Your task to perform on an android device: stop showing notifications on the lock screen Image 0: 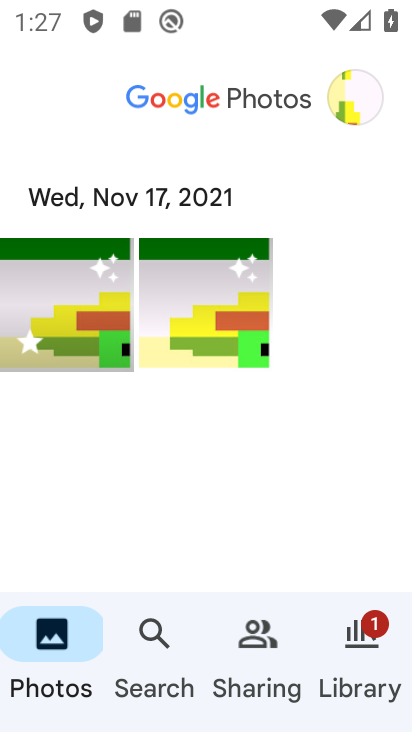
Step 0: press home button
Your task to perform on an android device: stop showing notifications on the lock screen Image 1: 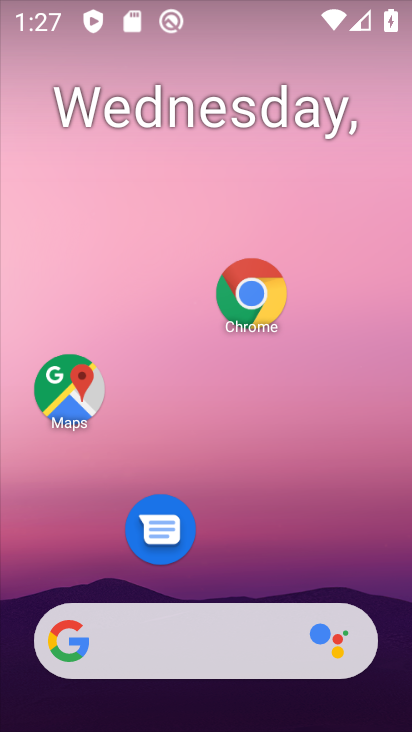
Step 1: drag from (291, 632) to (314, 84)
Your task to perform on an android device: stop showing notifications on the lock screen Image 2: 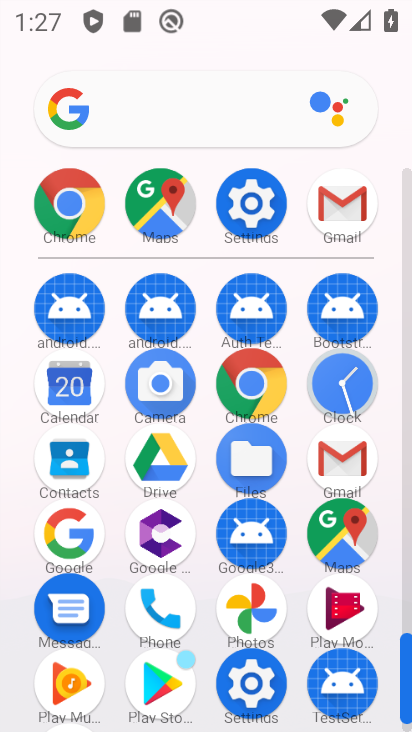
Step 2: click (262, 221)
Your task to perform on an android device: stop showing notifications on the lock screen Image 3: 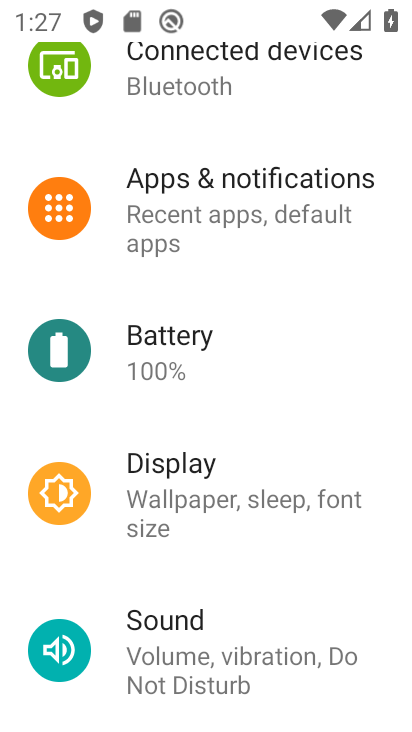
Step 3: drag from (259, 294) to (251, 540)
Your task to perform on an android device: stop showing notifications on the lock screen Image 4: 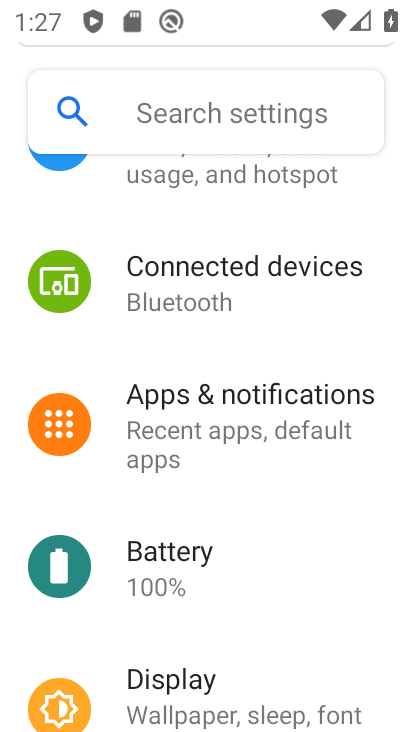
Step 4: click (272, 428)
Your task to perform on an android device: stop showing notifications on the lock screen Image 5: 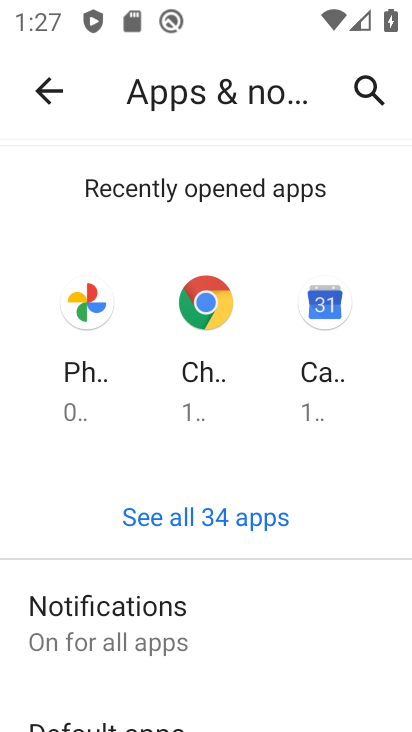
Step 5: drag from (206, 652) to (208, 291)
Your task to perform on an android device: stop showing notifications on the lock screen Image 6: 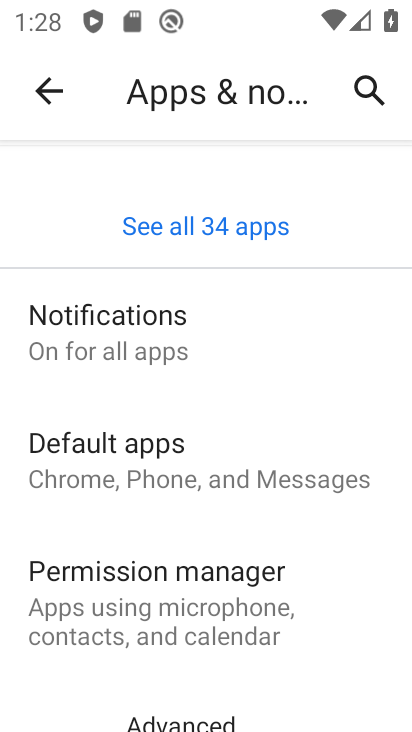
Step 6: click (203, 334)
Your task to perform on an android device: stop showing notifications on the lock screen Image 7: 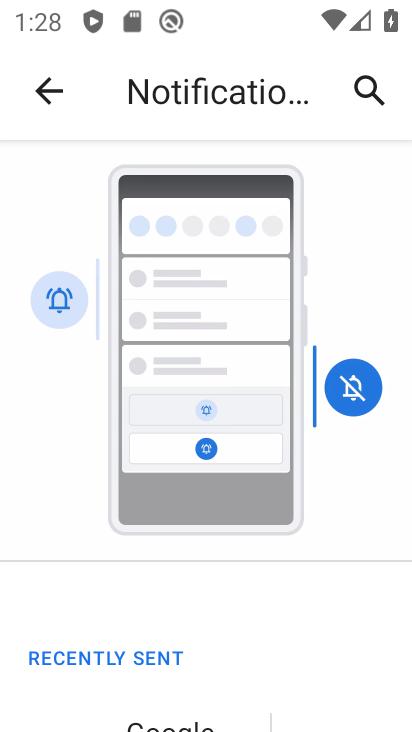
Step 7: drag from (210, 640) to (210, 337)
Your task to perform on an android device: stop showing notifications on the lock screen Image 8: 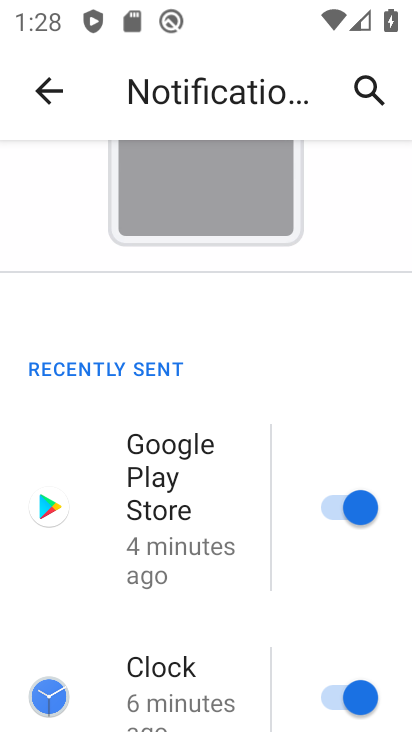
Step 8: drag from (244, 498) to (259, 283)
Your task to perform on an android device: stop showing notifications on the lock screen Image 9: 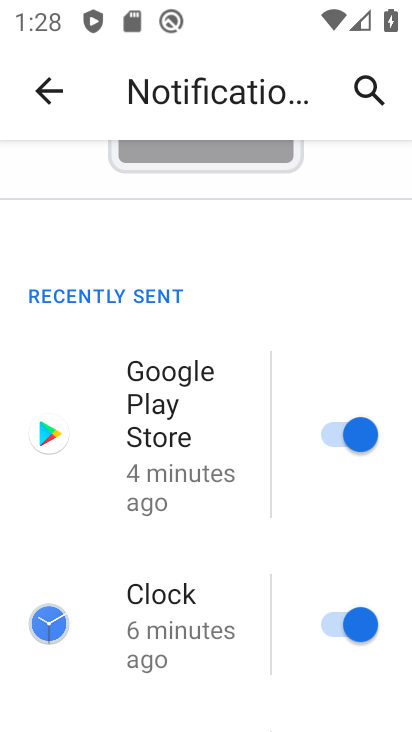
Step 9: drag from (173, 560) to (214, 245)
Your task to perform on an android device: stop showing notifications on the lock screen Image 10: 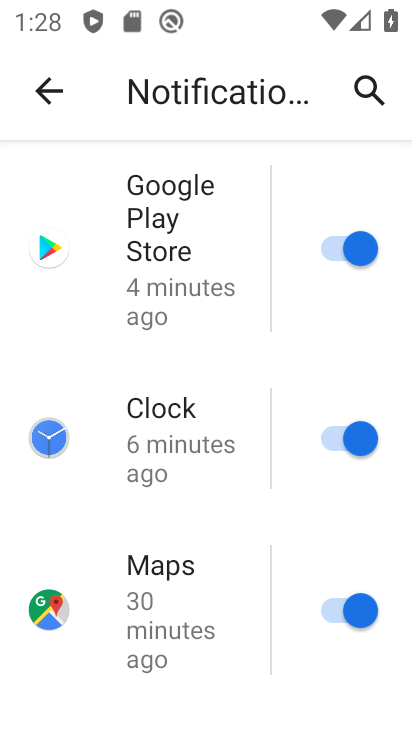
Step 10: drag from (200, 556) to (260, 137)
Your task to perform on an android device: stop showing notifications on the lock screen Image 11: 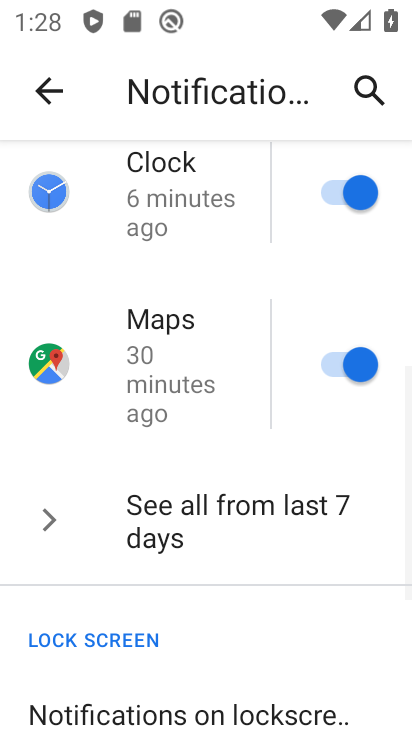
Step 11: drag from (200, 554) to (226, 254)
Your task to perform on an android device: stop showing notifications on the lock screen Image 12: 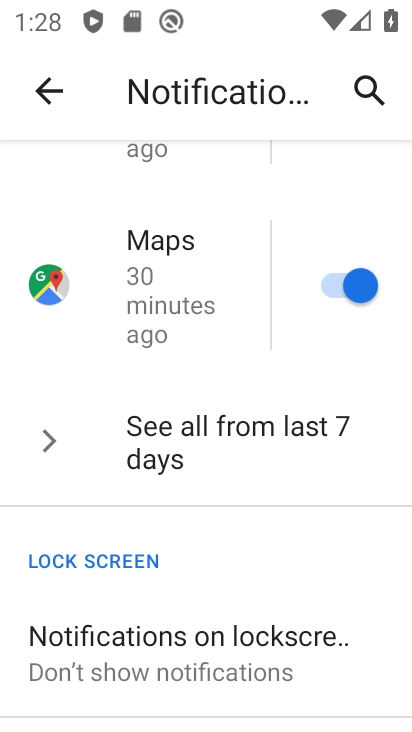
Step 12: click (253, 657)
Your task to perform on an android device: stop showing notifications on the lock screen Image 13: 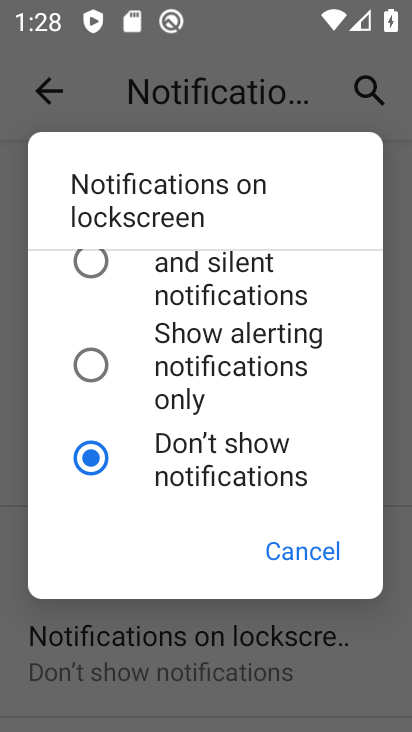
Step 13: task complete